Your task to perform on an android device: Go to accessibility settings Image 0: 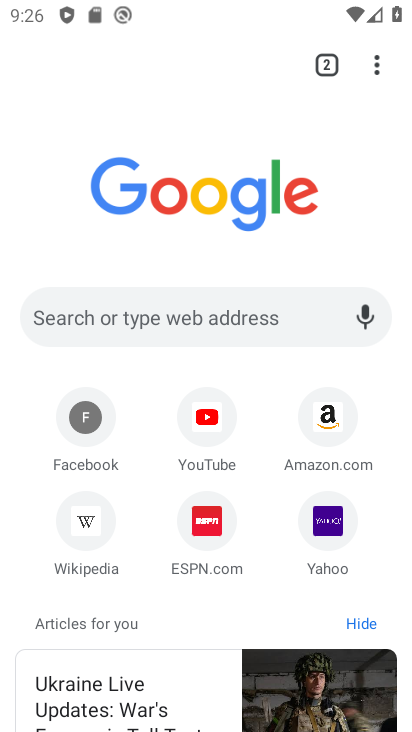
Step 0: press home button
Your task to perform on an android device: Go to accessibility settings Image 1: 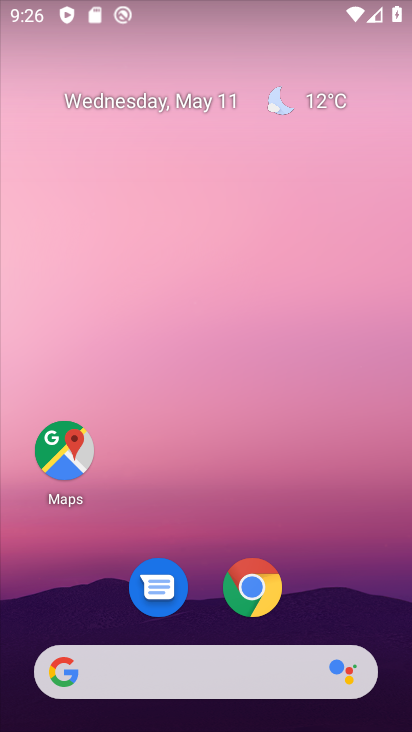
Step 1: drag from (361, 393) to (389, 0)
Your task to perform on an android device: Go to accessibility settings Image 2: 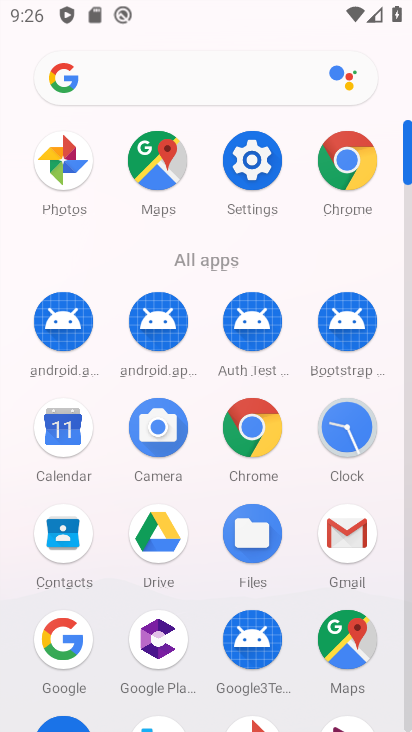
Step 2: click (253, 170)
Your task to perform on an android device: Go to accessibility settings Image 3: 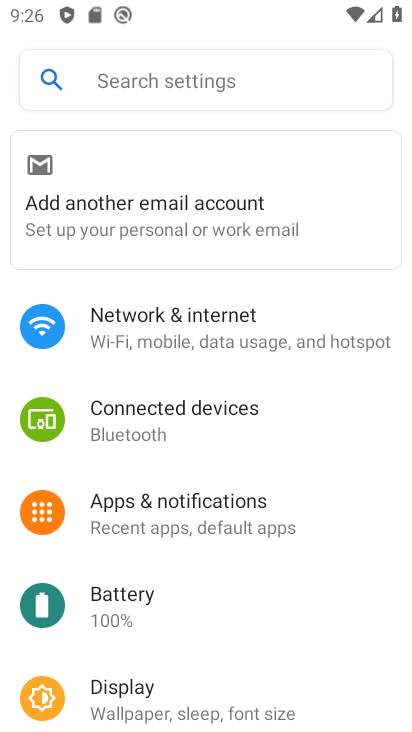
Step 3: drag from (332, 596) to (349, 140)
Your task to perform on an android device: Go to accessibility settings Image 4: 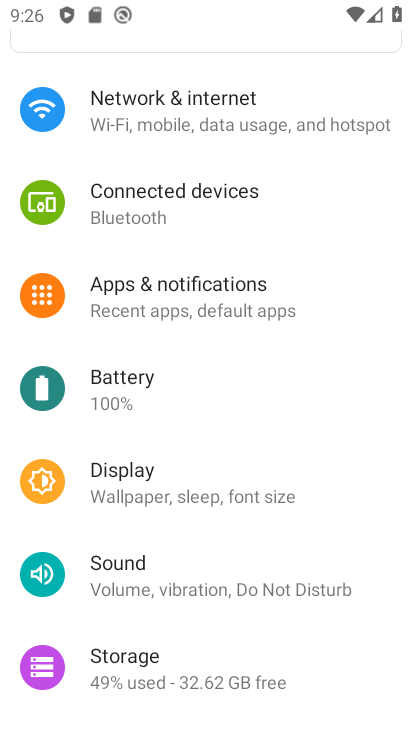
Step 4: drag from (344, 516) to (347, 162)
Your task to perform on an android device: Go to accessibility settings Image 5: 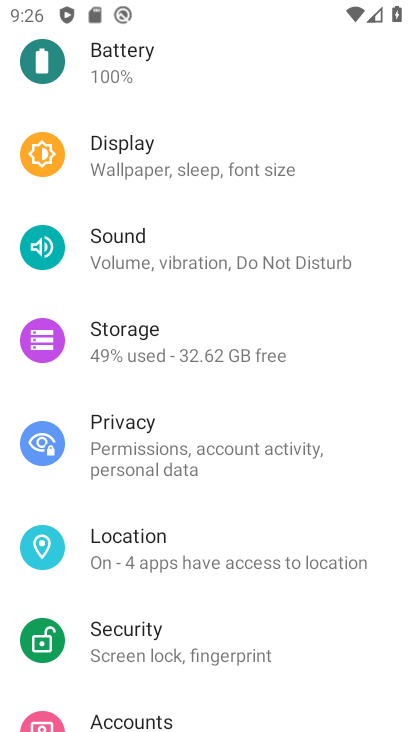
Step 5: drag from (358, 578) to (357, 387)
Your task to perform on an android device: Go to accessibility settings Image 6: 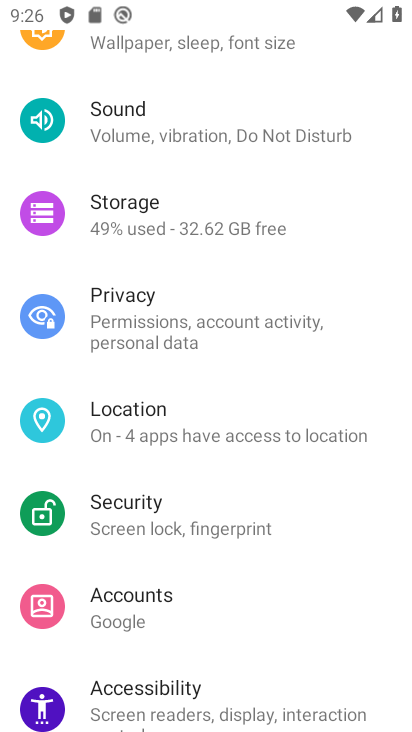
Step 6: click (105, 693)
Your task to perform on an android device: Go to accessibility settings Image 7: 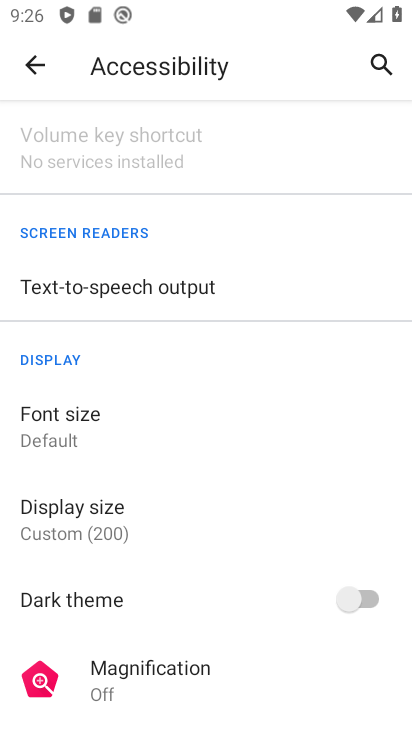
Step 7: task complete